Your task to perform on an android device: Clear all items from cart on target.com. Image 0: 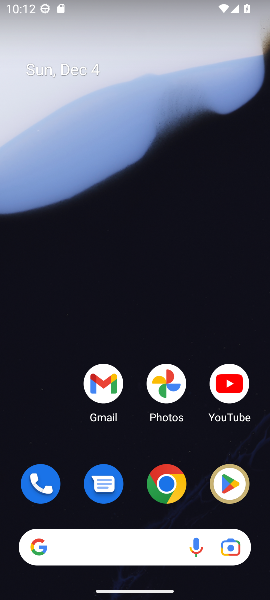
Step 0: click (167, 490)
Your task to perform on an android device: Clear all items from cart on target.com. Image 1: 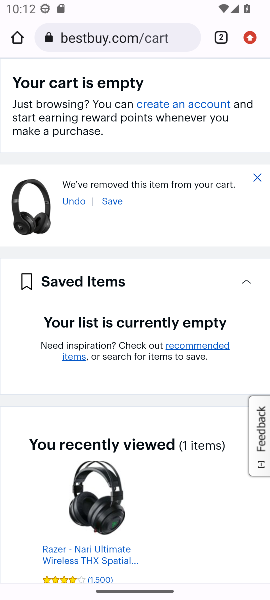
Step 1: click (111, 38)
Your task to perform on an android device: Clear all items from cart on target.com. Image 2: 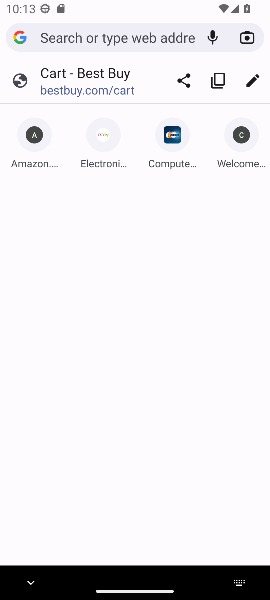
Step 2: type "target.com"
Your task to perform on an android device: Clear all items from cart on target.com. Image 3: 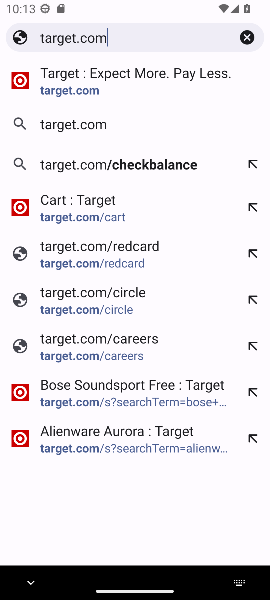
Step 3: click (78, 91)
Your task to perform on an android device: Clear all items from cart on target.com. Image 4: 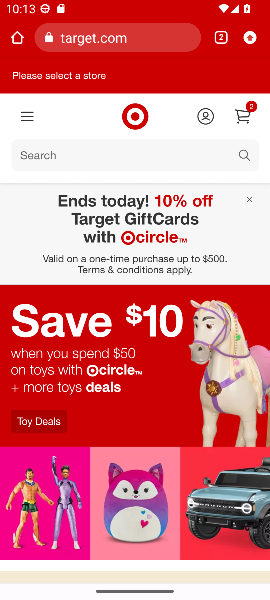
Step 4: click (241, 115)
Your task to perform on an android device: Clear all items from cart on target.com. Image 5: 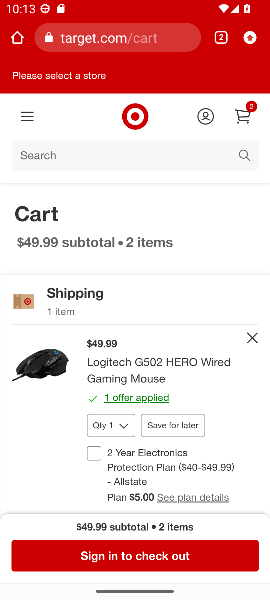
Step 5: click (251, 341)
Your task to perform on an android device: Clear all items from cart on target.com. Image 6: 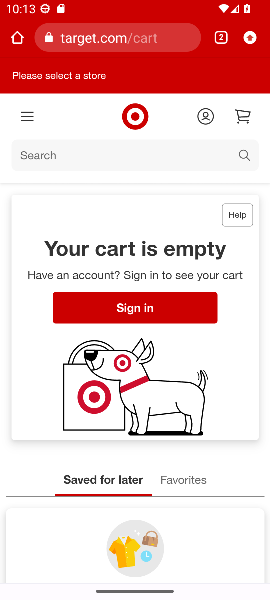
Step 6: task complete